Your task to perform on an android device: turn off improve location accuracy Image 0: 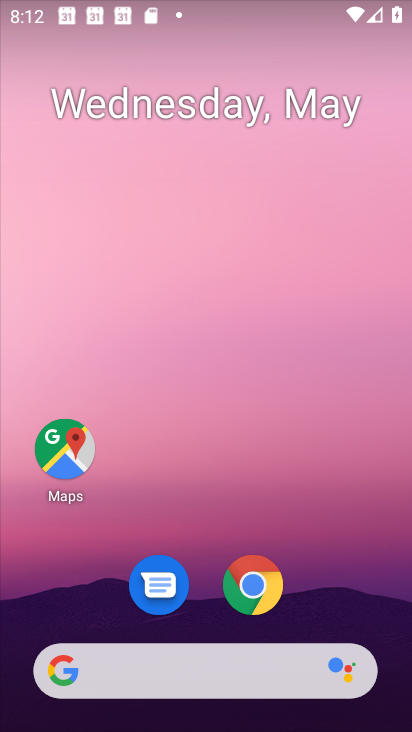
Step 0: drag from (346, 578) to (280, 84)
Your task to perform on an android device: turn off improve location accuracy Image 1: 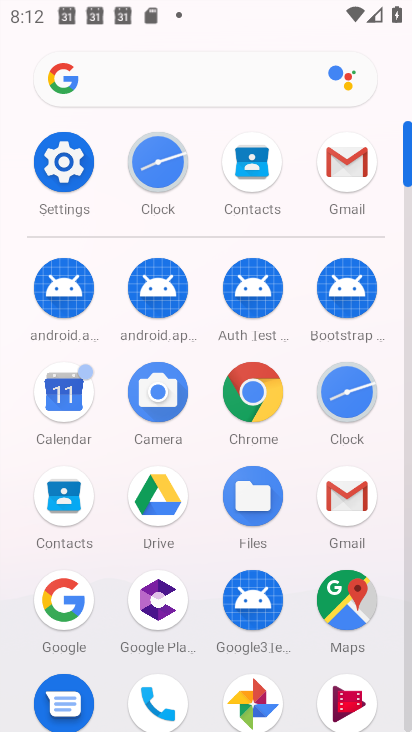
Step 1: click (63, 154)
Your task to perform on an android device: turn off improve location accuracy Image 2: 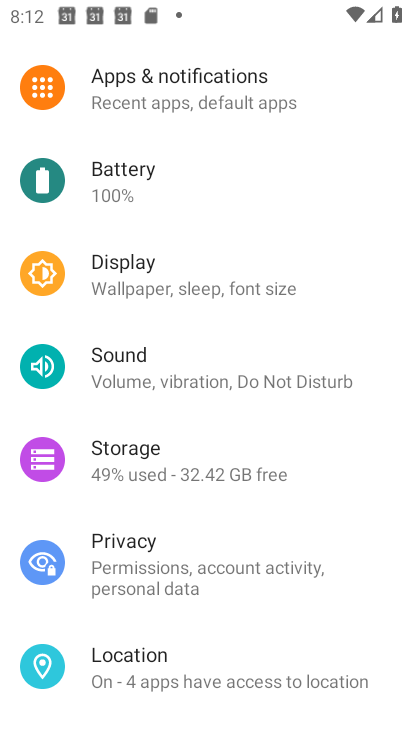
Step 2: click (250, 658)
Your task to perform on an android device: turn off improve location accuracy Image 3: 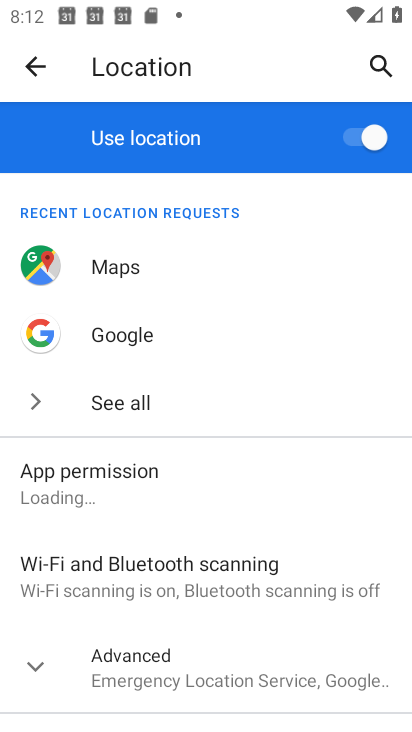
Step 3: click (31, 663)
Your task to perform on an android device: turn off improve location accuracy Image 4: 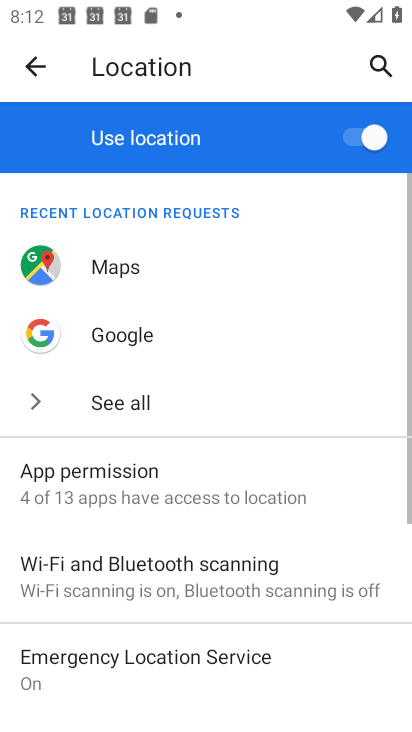
Step 4: drag from (258, 642) to (238, 279)
Your task to perform on an android device: turn off improve location accuracy Image 5: 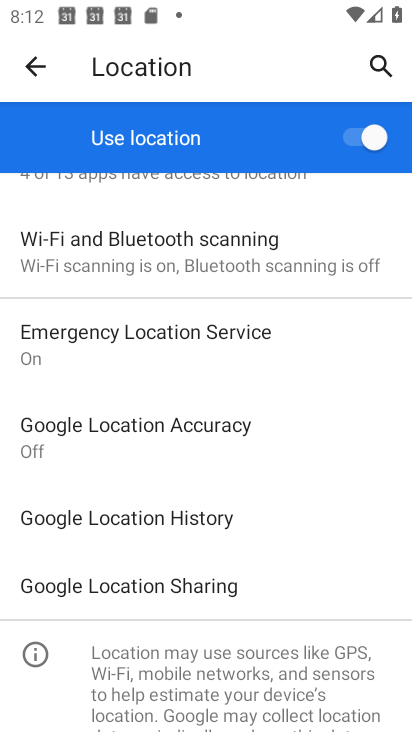
Step 5: click (220, 425)
Your task to perform on an android device: turn off improve location accuracy Image 6: 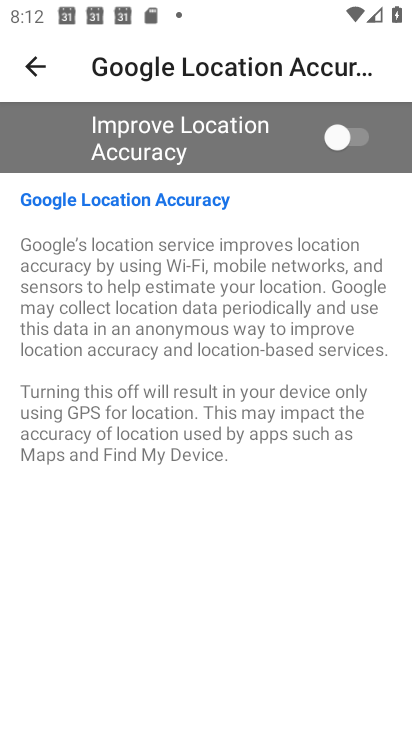
Step 6: task complete